Your task to perform on an android device: toggle sleep mode Image 0: 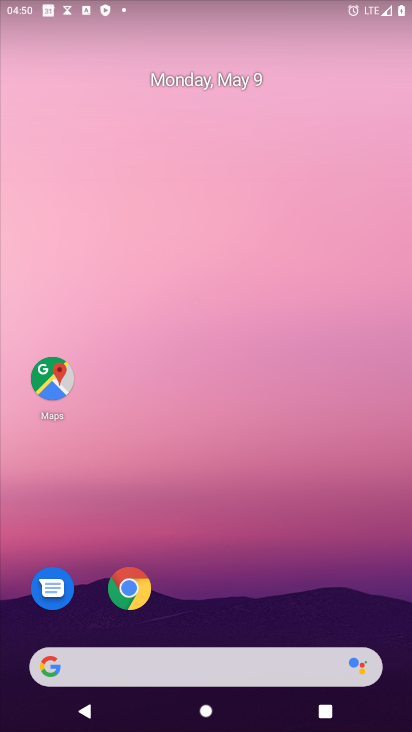
Step 0: drag from (243, 558) to (190, 95)
Your task to perform on an android device: toggle sleep mode Image 1: 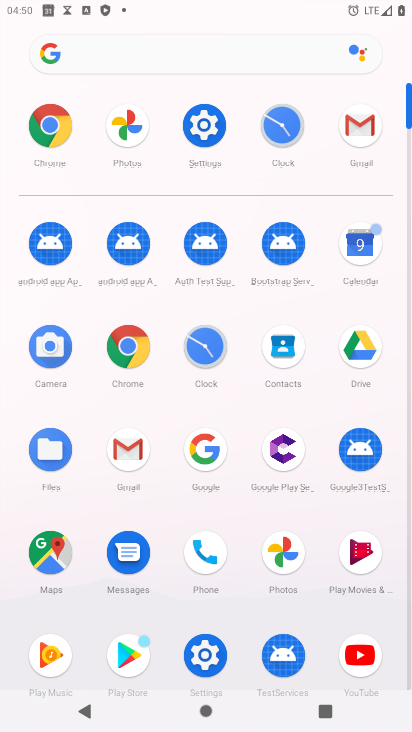
Step 1: click (209, 112)
Your task to perform on an android device: toggle sleep mode Image 2: 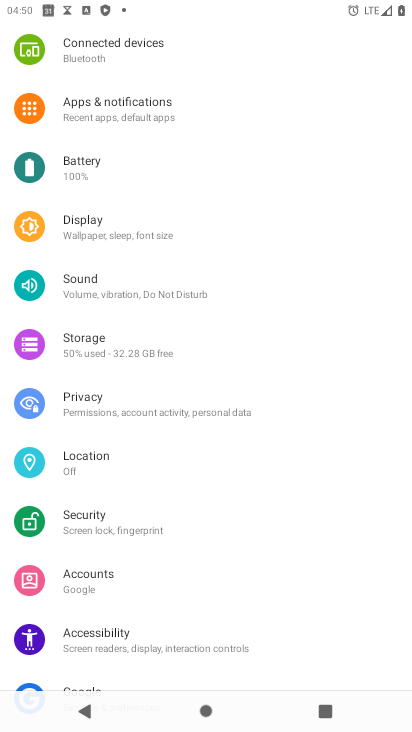
Step 2: click (152, 238)
Your task to perform on an android device: toggle sleep mode Image 3: 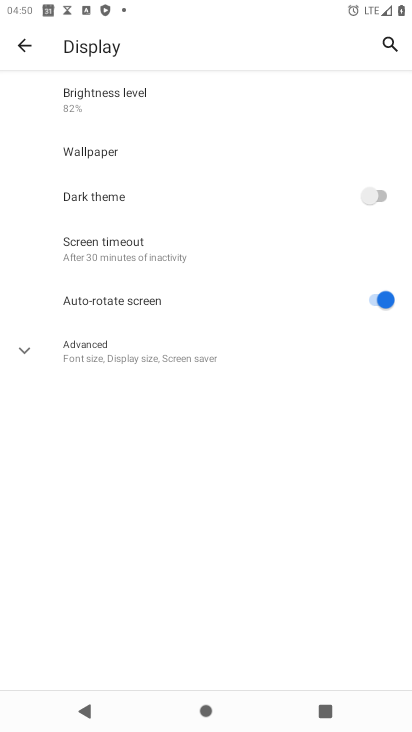
Step 3: task complete